Your task to perform on an android device: turn on location history Image 0: 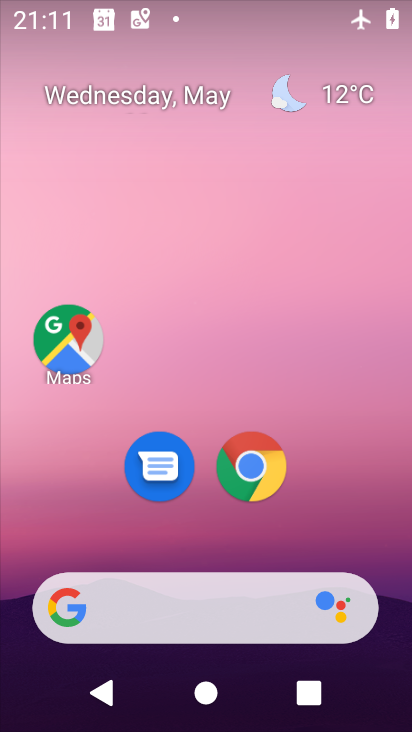
Step 0: drag from (224, 8) to (224, 614)
Your task to perform on an android device: turn on location history Image 1: 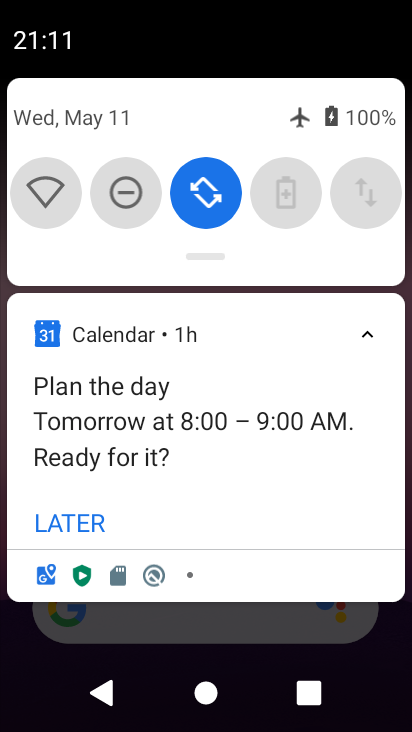
Step 1: drag from (236, 293) to (211, 682)
Your task to perform on an android device: turn on location history Image 2: 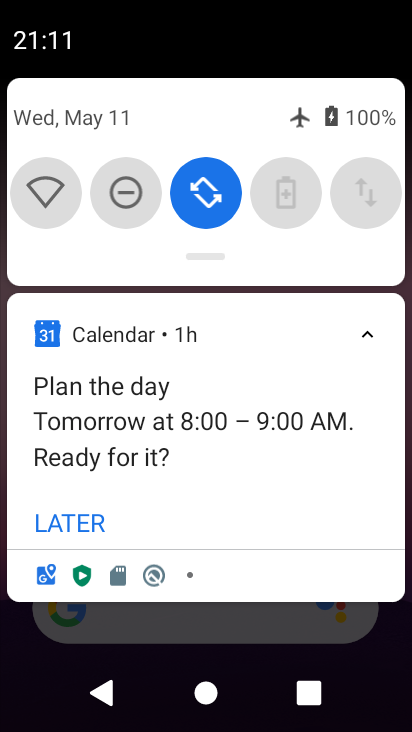
Step 2: drag from (231, 256) to (183, 728)
Your task to perform on an android device: turn on location history Image 3: 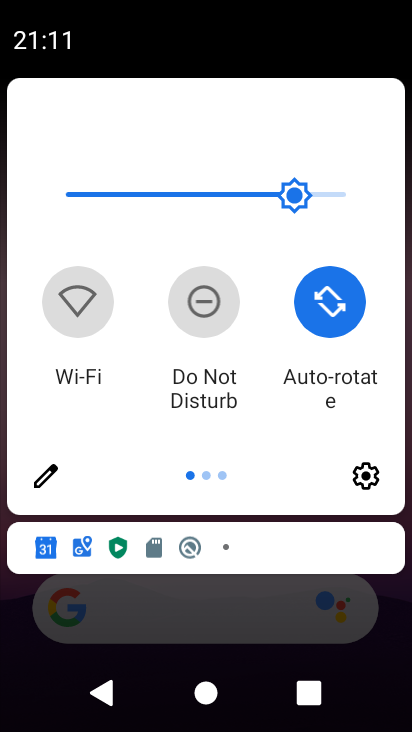
Step 3: drag from (359, 341) to (33, 351)
Your task to perform on an android device: turn on location history Image 4: 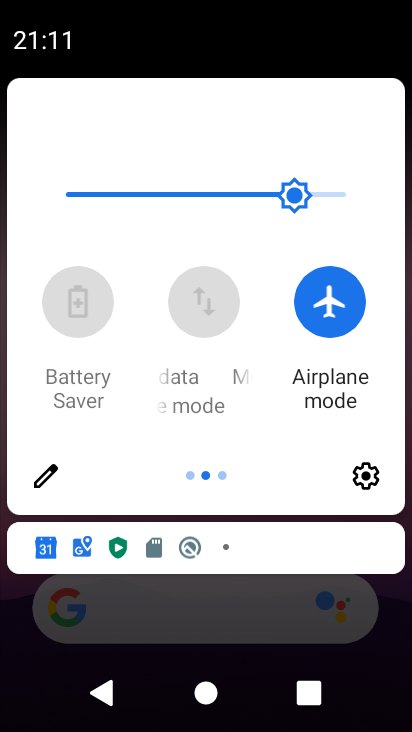
Step 4: click (326, 293)
Your task to perform on an android device: turn on location history Image 5: 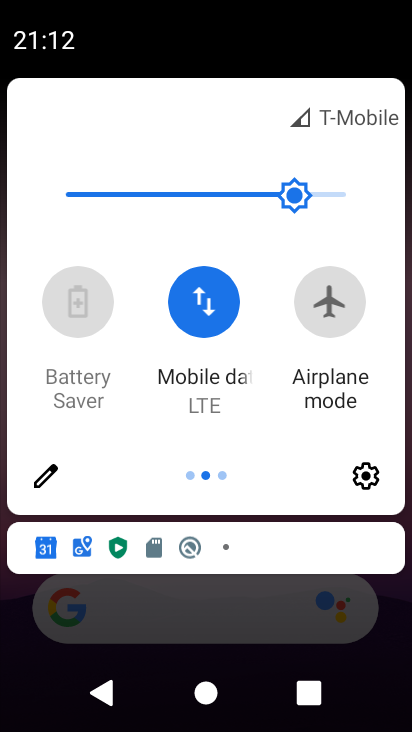
Step 5: task complete